Your task to perform on an android device: turn off data saver in the chrome app Image 0: 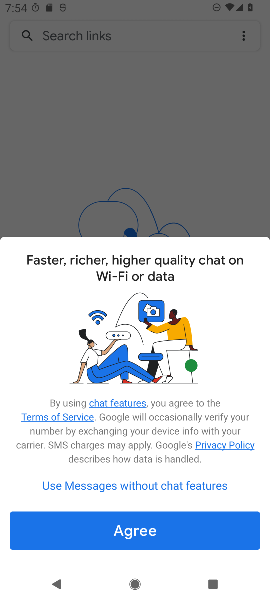
Step 0: press home button
Your task to perform on an android device: turn off data saver in the chrome app Image 1: 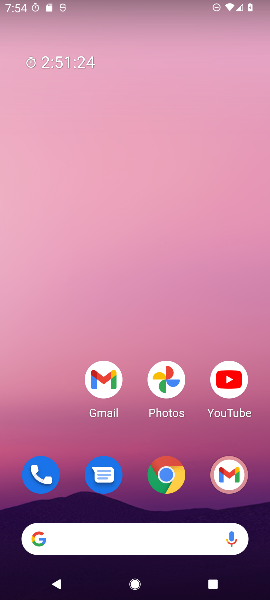
Step 1: drag from (65, 435) to (52, 302)
Your task to perform on an android device: turn off data saver in the chrome app Image 2: 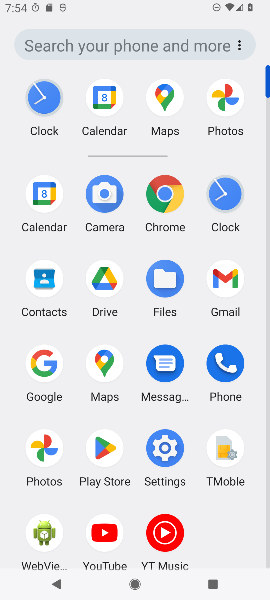
Step 2: click (165, 198)
Your task to perform on an android device: turn off data saver in the chrome app Image 3: 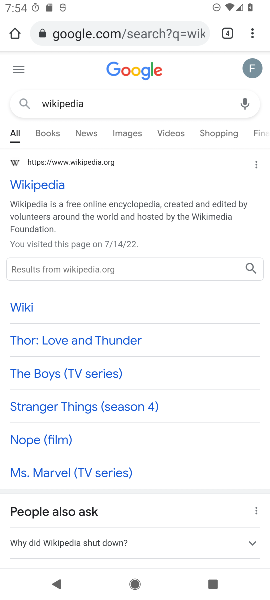
Step 3: click (250, 34)
Your task to perform on an android device: turn off data saver in the chrome app Image 4: 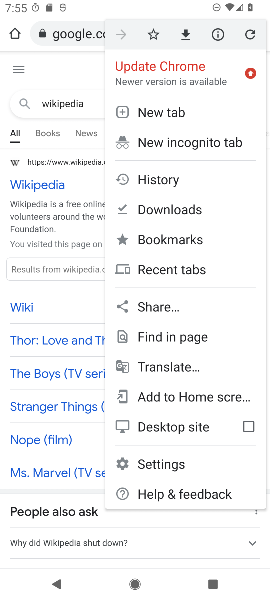
Step 4: click (186, 464)
Your task to perform on an android device: turn off data saver in the chrome app Image 5: 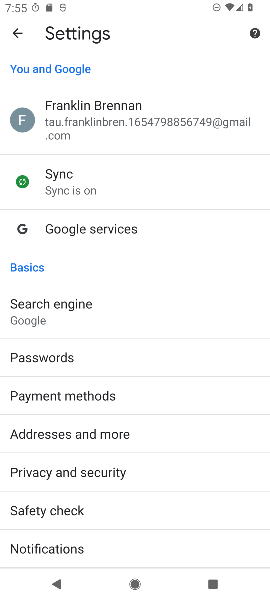
Step 5: click (229, 403)
Your task to perform on an android device: turn off data saver in the chrome app Image 6: 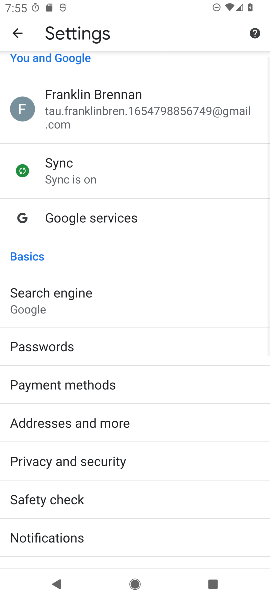
Step 6: drag from (220, 480) to (220, 399)
Your task to perform on an android device: turn off data saver in the chrome app Image 7: 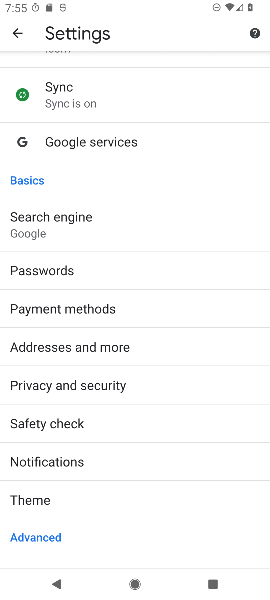
Step 7: drag from (210, 428) to (214, 367)
Your task to perform on an android device: turn off data saver in the chrome app Image 8: 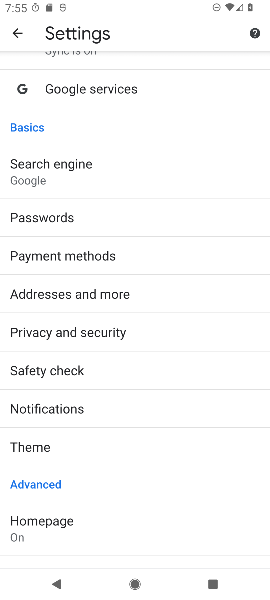
Step 8: drag from (193, 469) to (192, 379)
Your task to perform on an android device: turn off data saver in the chrome app Image 9: 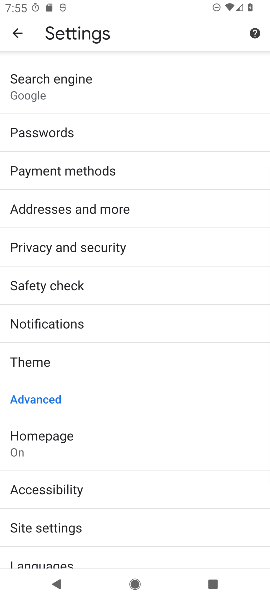
Step 9: drag from (184, 480) to (185, 386)
Your task to perform on an android device: turn off data saver in the chrome app Image 10: 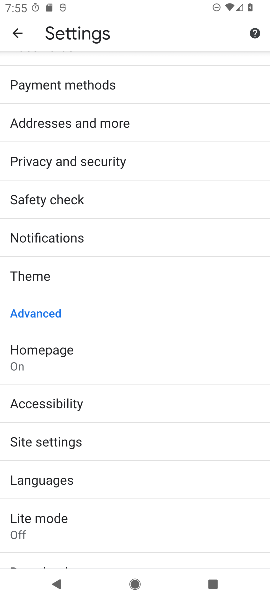
Step 10: click (181, 512)
Your task to perform on an android device: turn off data saver in the chrome app Image 11: 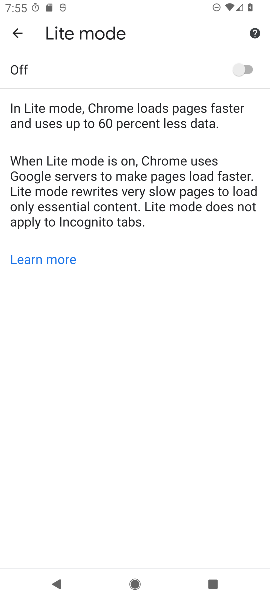
Step 11: task complete